Your task to perform on an android device: Open accessibility settings Image 0: 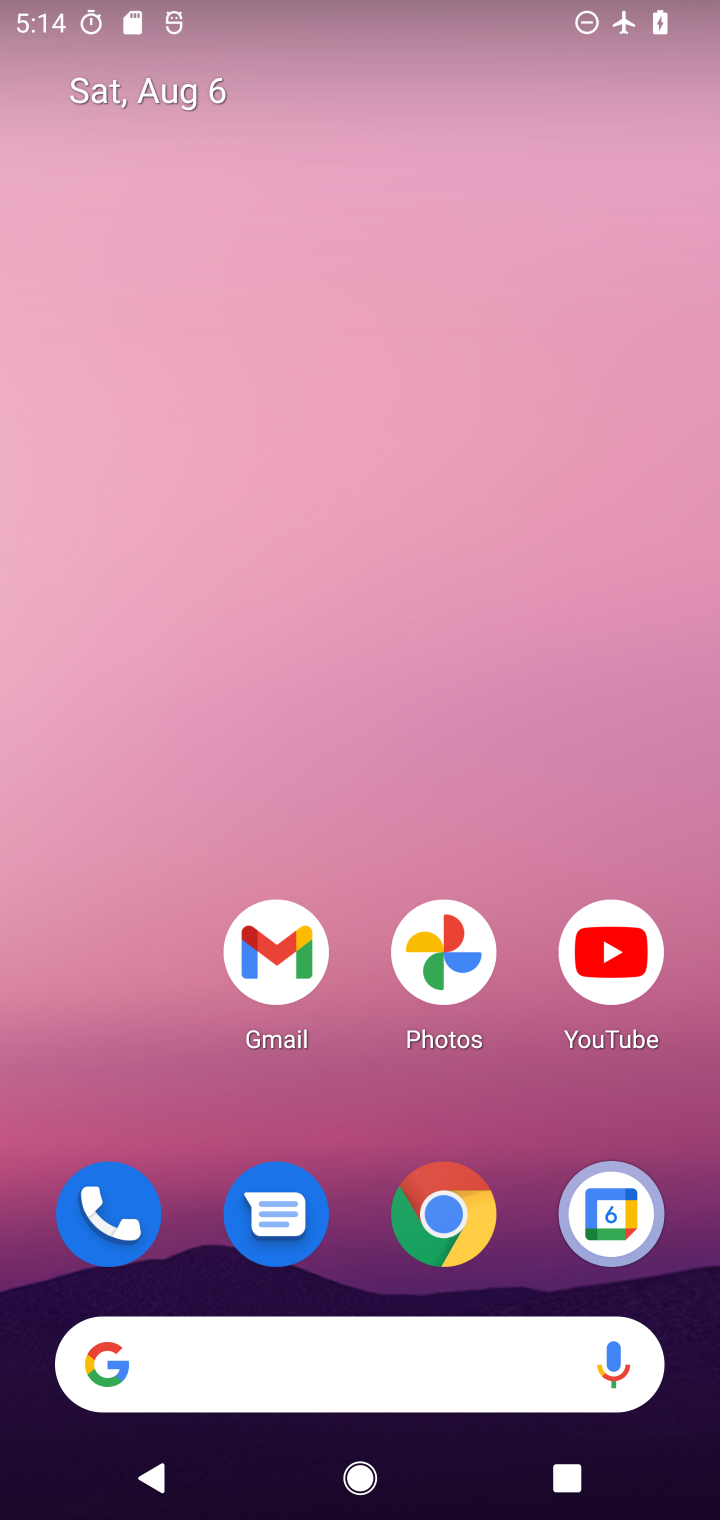
Step 0: drag from (341, 1265) to (322, 52)
Your task to perform on an android device: Open accessibility settings Image 1: 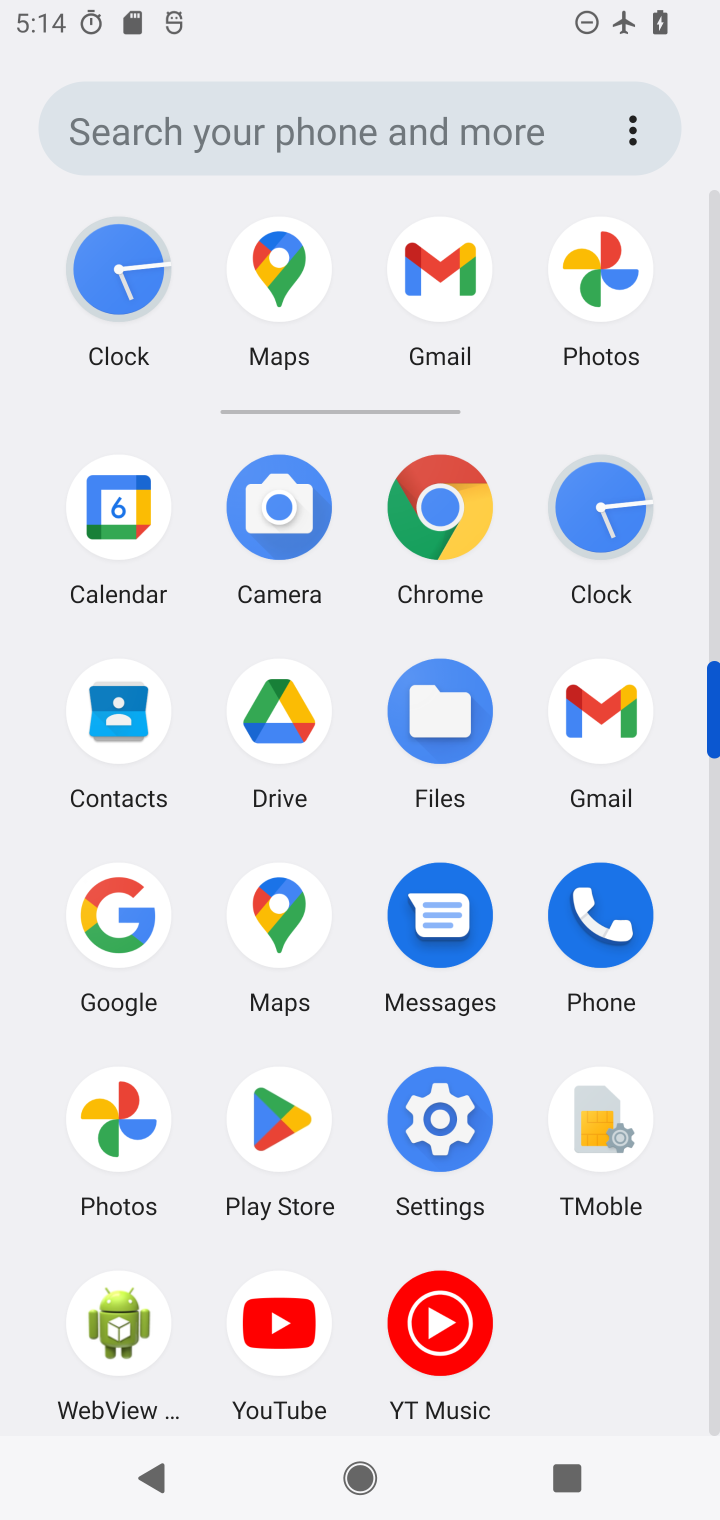
Step 1: click (433, 1131)
Your task to perform on an android device: Open accessibility settings Image 2: 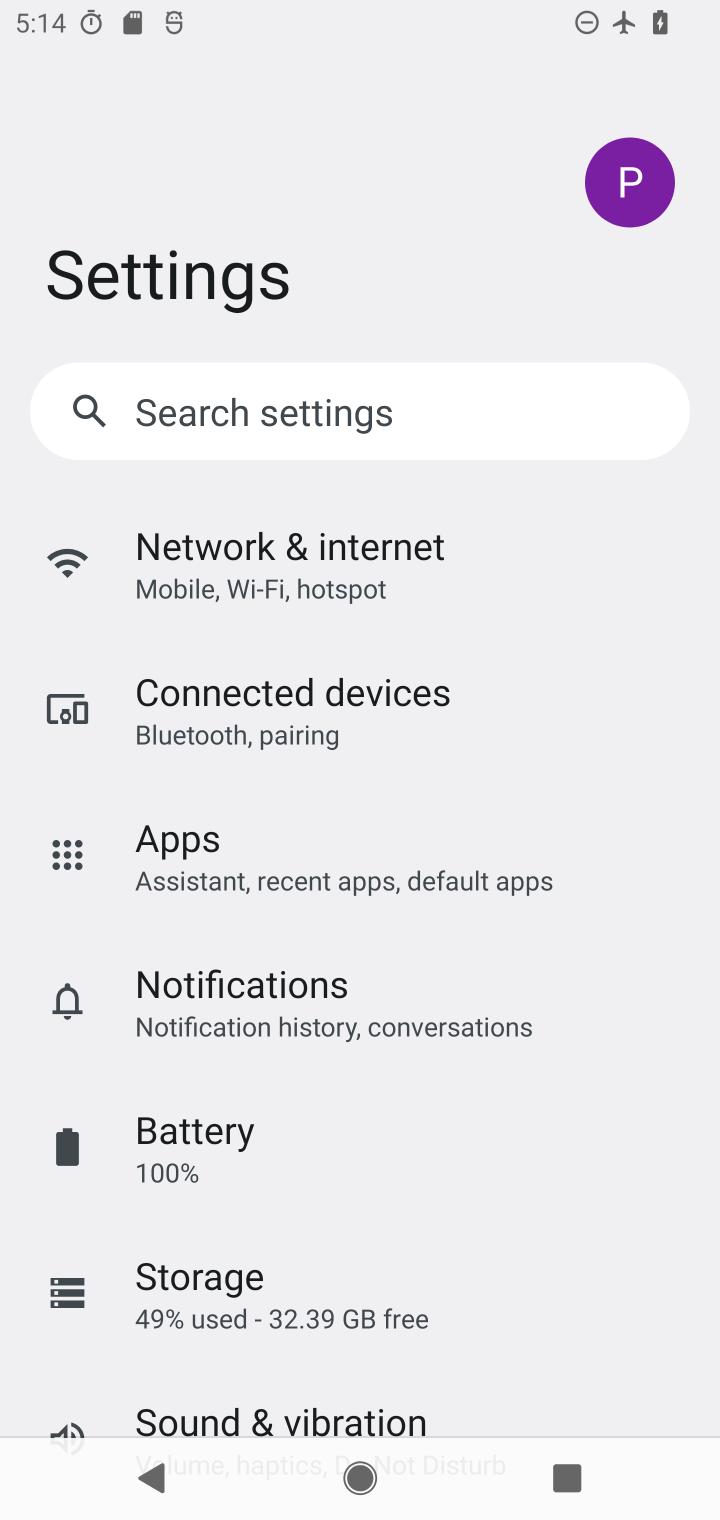
Step 2: drag from (238, 1097) to (238, 491)
Your task to perform on an android device: Open accessibility settings Image 3: 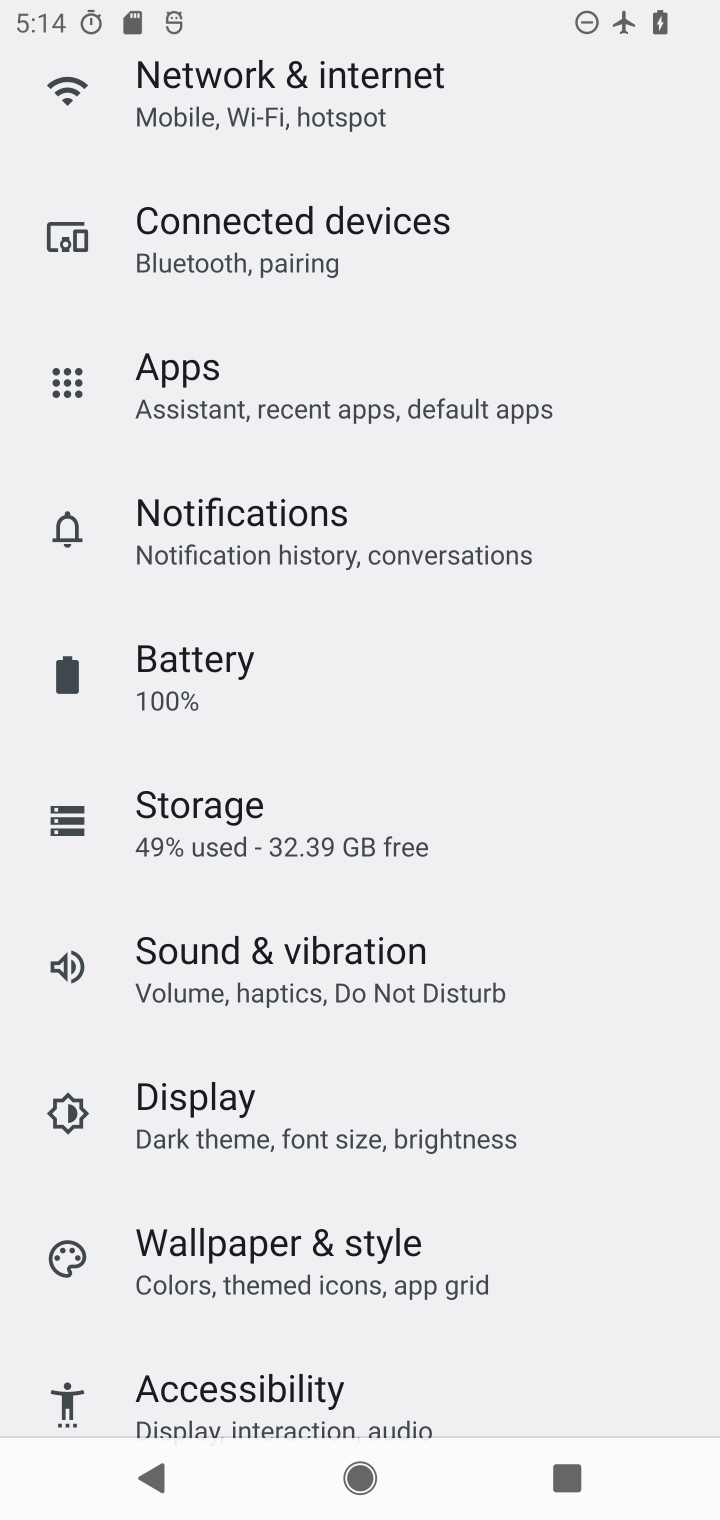
Step 3: click (228, 1396)
Your task to perform on an android device: Open accessibility settings Image 4: 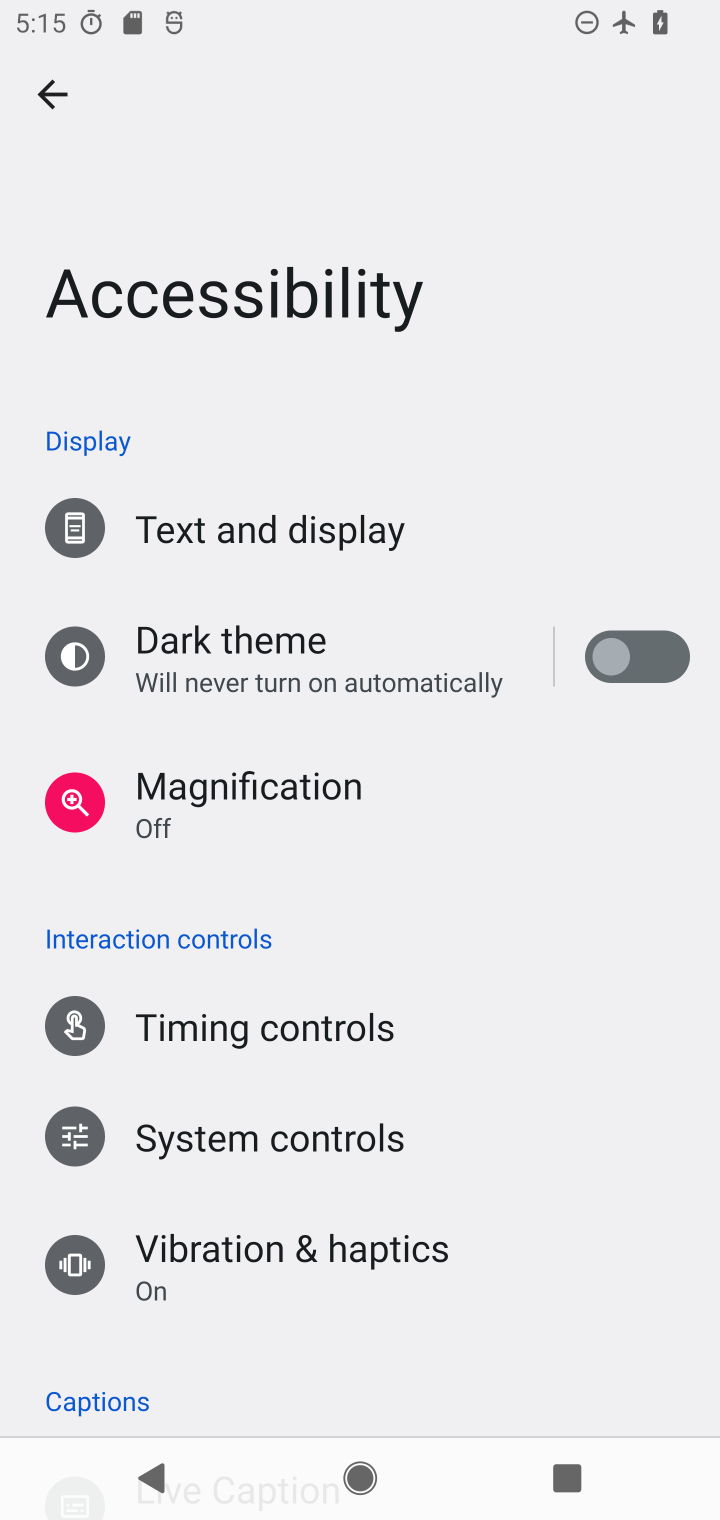
Step 4: task complete